Your task to perform on an android device: toggle data saver in the chrome app Image 0: 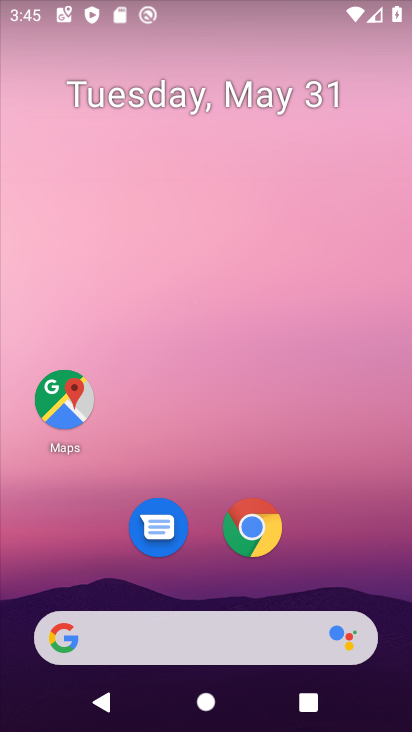
Step 0: click (265, 540)
Your task to perform on an android device: toggle data saver in the chrome app Image 1: 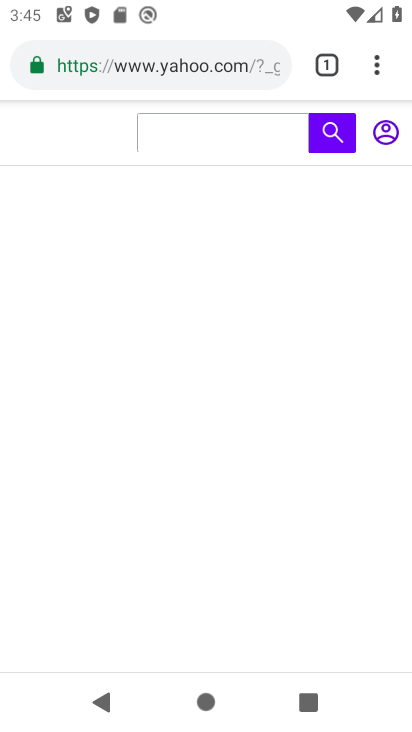
Step 1: click (377, 60)
Your task to perform on an android device: toggle data saver in the chrome app Image 2: 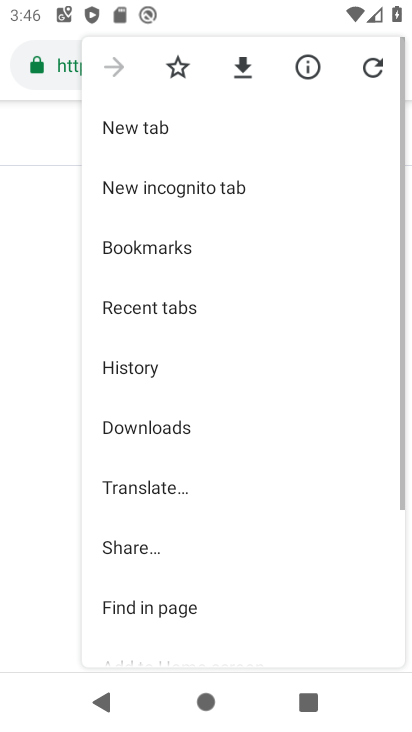
Step 2: drag from (176, 627) to (162, 138)
Your task to perform on an android device: toggle data saver in the chrome app Image 3: 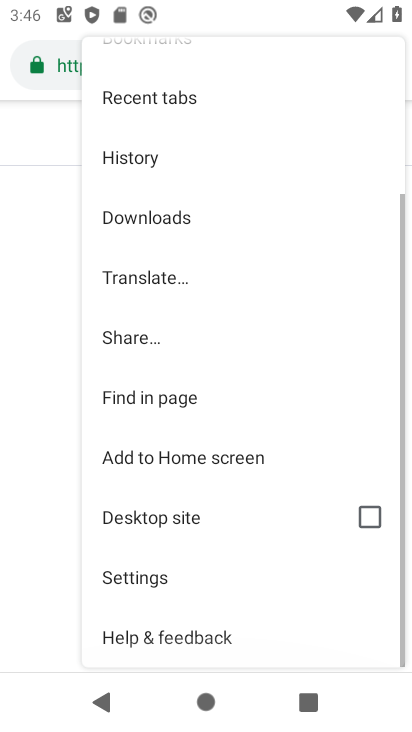
Step 3: click (185, 571)
Your task to perform on an android device: toggle data saver in the chrome app Image 4: 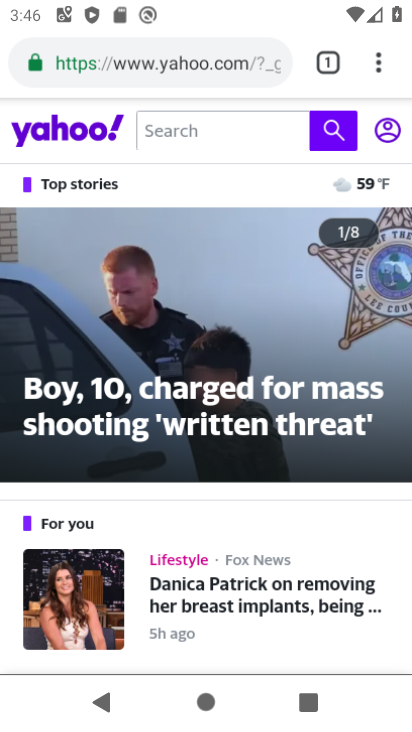
Step 4: drag from (185, 571) to (140, 3)
Your task to perform on an android device: toggle data saver in the chrome app Image 5: 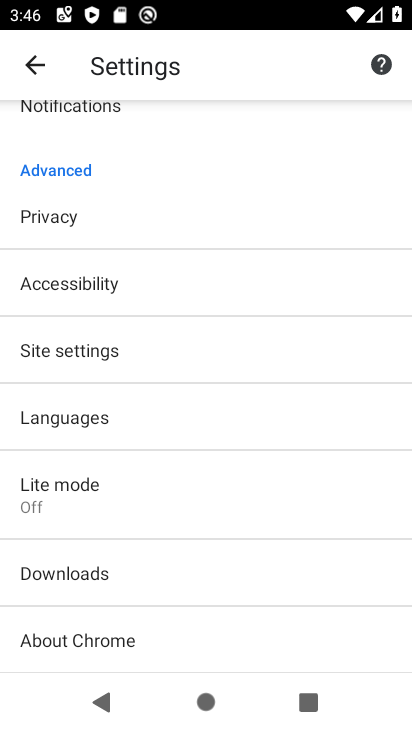
Step 5: click (88, 496)
Your task to perform on an android device: toggle data saver in the chrome app Image 6: 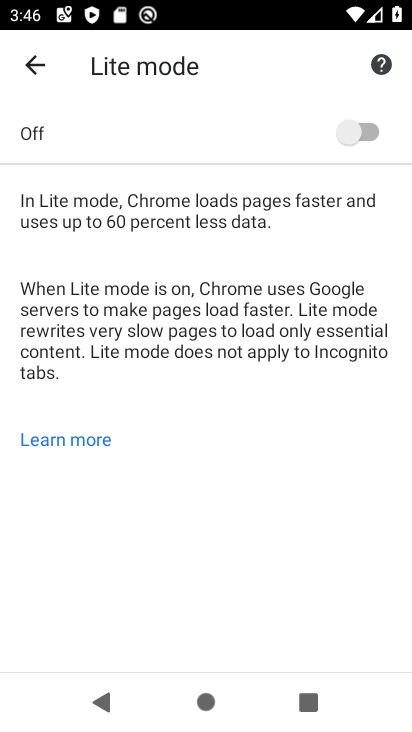
Step 6: click (358, 136)
Your task to perform on an android device: toggle data saver in the chrome app Image 7: 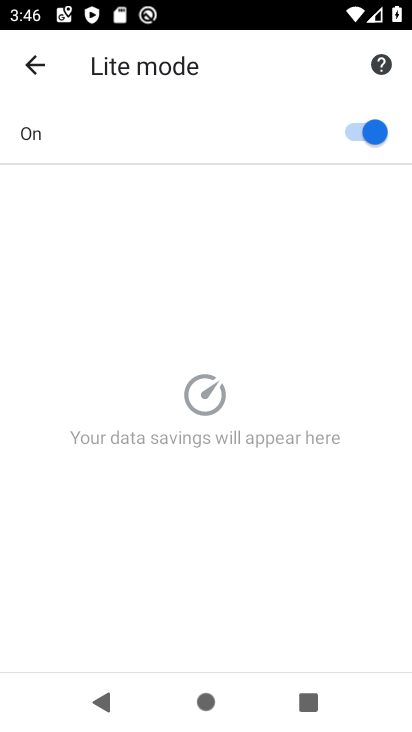
Step 7: task complete